Your task to perform on an android device: Open the phone app and click the voicemail tab. Image 0: 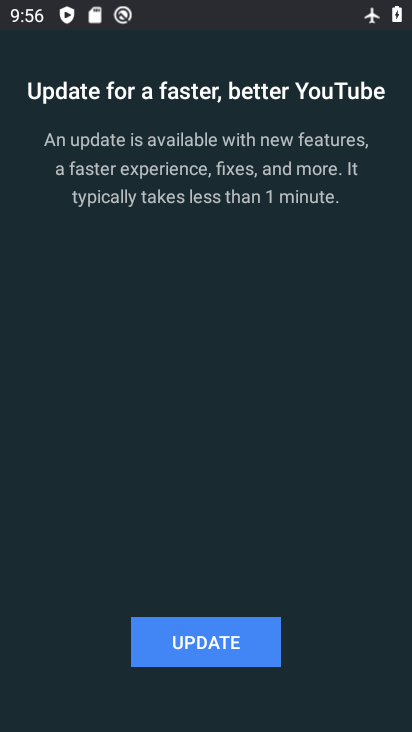
Step 0: press back button
Your task to perform on an android device: Open the phone app and click the voicemail tab. Image 1: 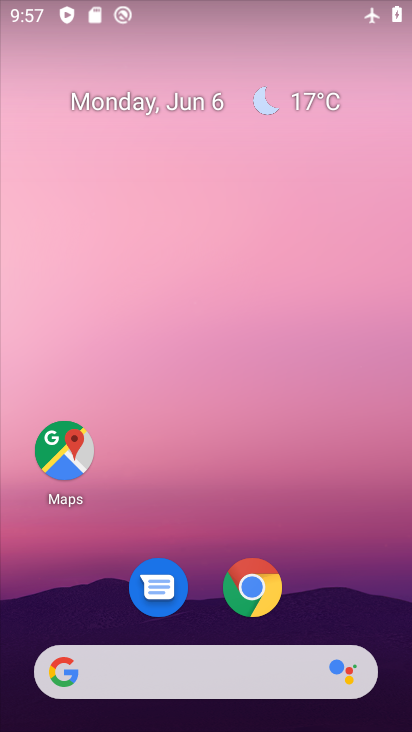
Step 1: drag from (341, 617) to (270, 264)
Your task to perform on an android device: Open the phone app and click the voicemail tab. Image 2: 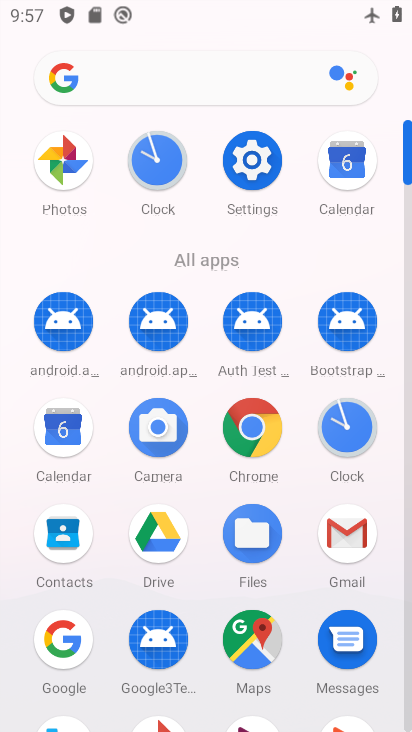
Step 2: click (409, 722)
Your task to perform on an android device: Open the phone app and click the voicemail tab. Image 3: 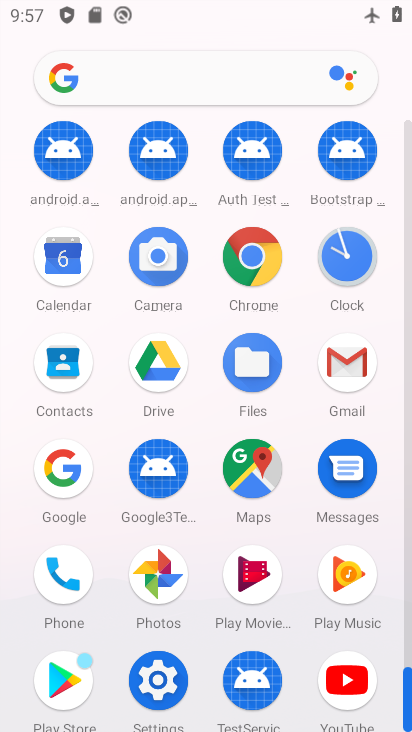
Step 3: click (77, 585)
Your task to perform on an android device: Open the phone app and click the voicemail tab. Image 4: 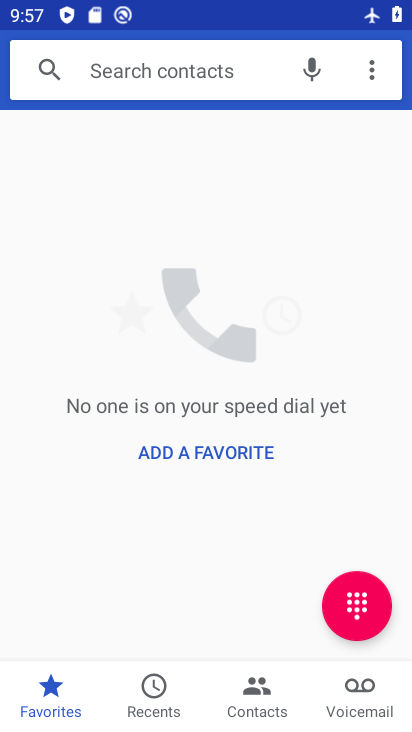
Step 4: click (377, 709)
Your task to perform on an android device: Open the phone app and click the voicemail tab. Image 5: 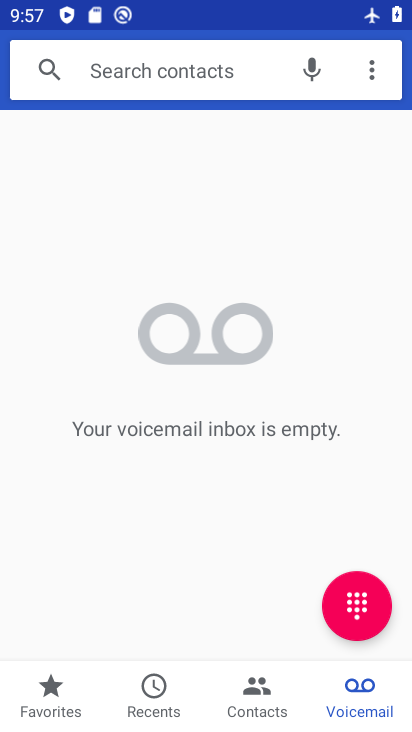
Step 5: task complete